Your task to perform on an android device: empty trash in google photos Image 0: 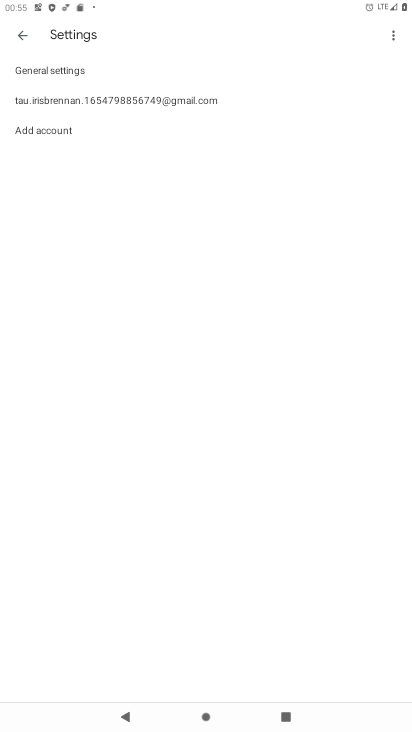
Step 0: press home button
Your task to perform on an android device: empty trash in google photos Image 1: 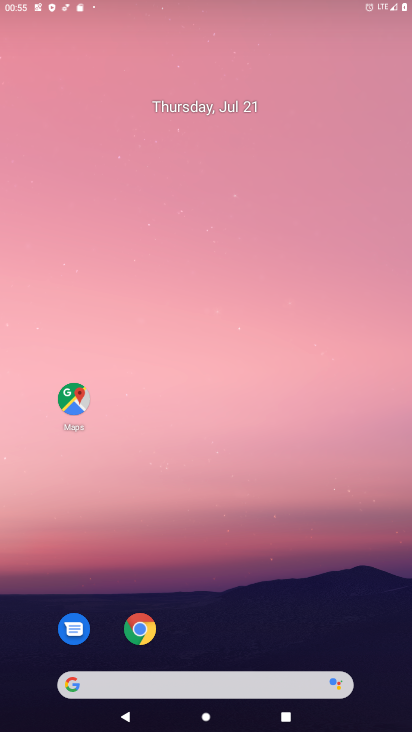
Step 1: drag from (348, 572) to (333, 112)
Your task to perform on an android device: empty trash in google photos Image 2: 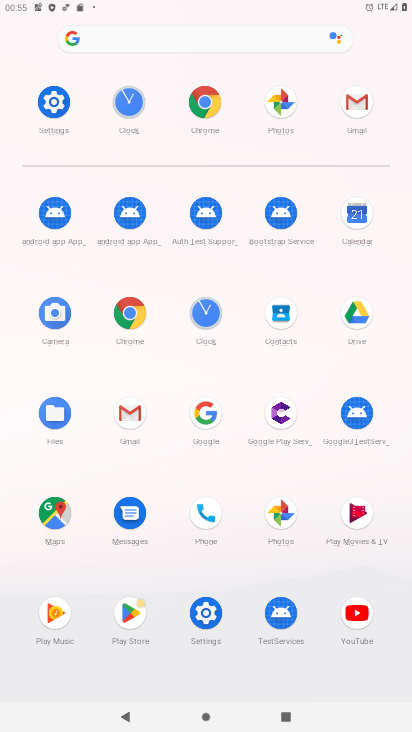
Step 2: click (281, 515)
Your task to perform on an android device: empty trash in google photos Image 3: 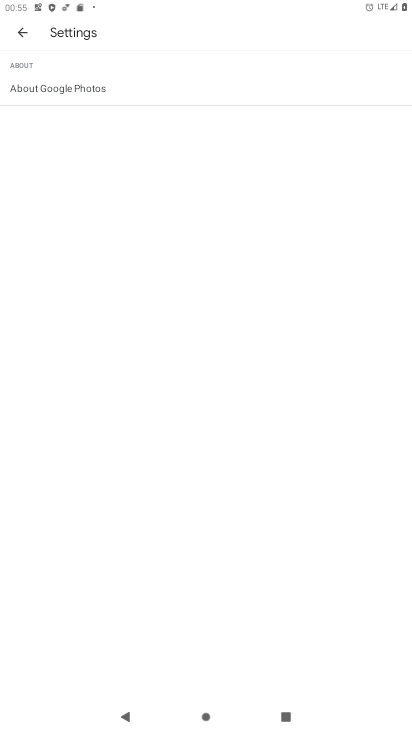
Step 3: click (30, 25)
Your task to perform on an android device: empty trash in google photos Image 4: 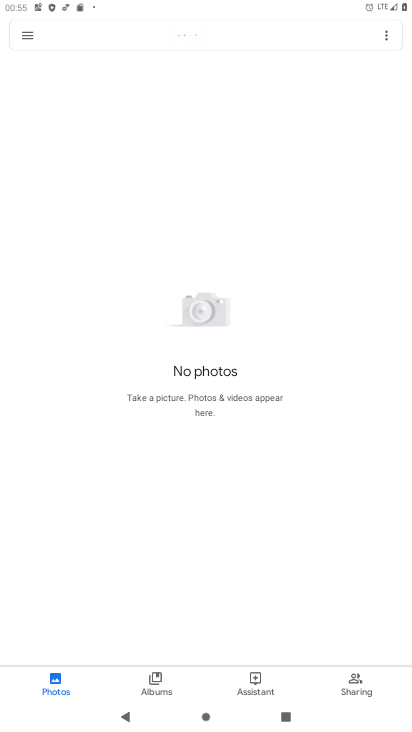
Step 4: click (30, 25)
Your task to perform on an android device: empty trash in google photos Image 5: 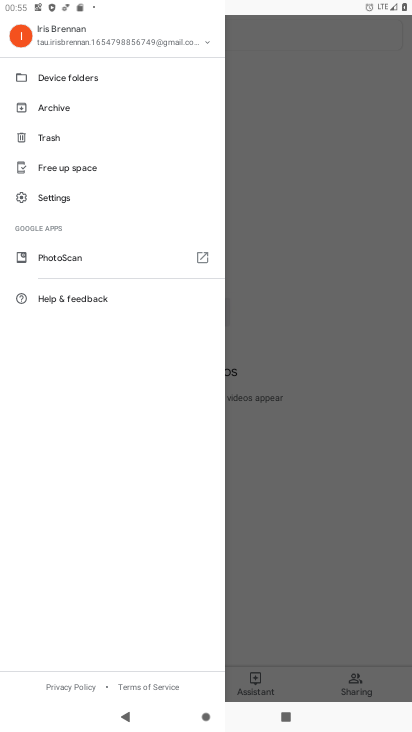
Step 5: click (44, 132)
Your task to perform on an android device: empty trash in google photos Image 6: 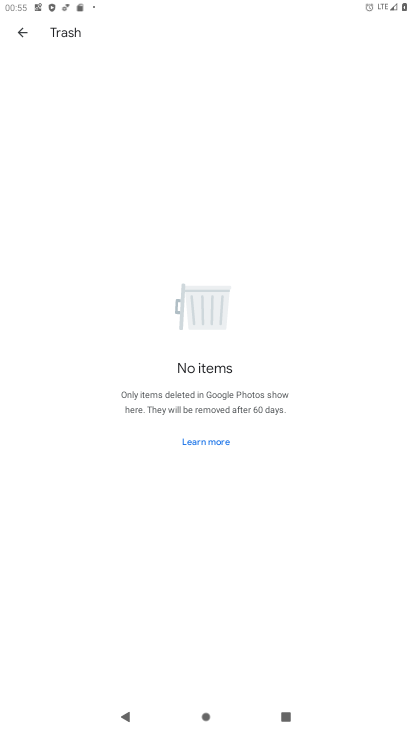
Step 6: task complete